Your task to perform on an android device: turn on bluetooth scan Image 0: 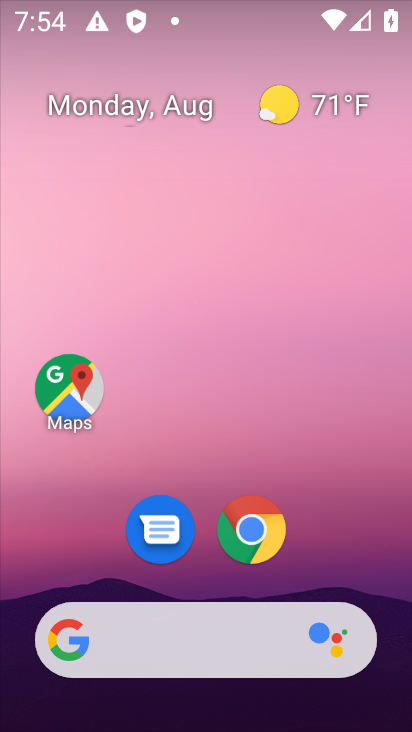
Step 0: drag from (280, 626) to (130, 69)
Your task to perform on an android device: turn on bluetooth scan Image 1: 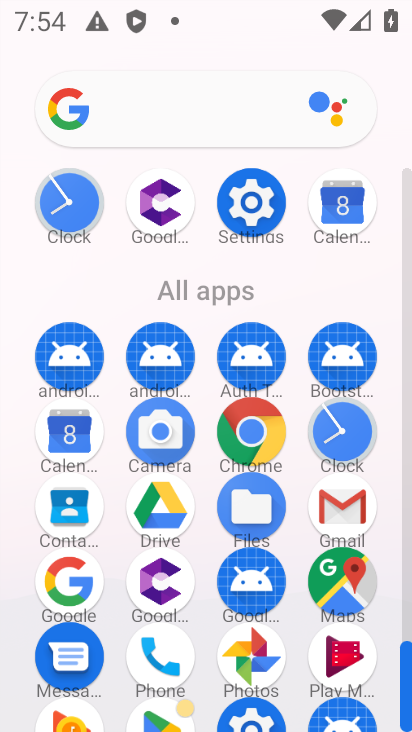
Step 1: click (242, 213)
Your task to perform on an android device: turn on bluetooth scan Image 2: 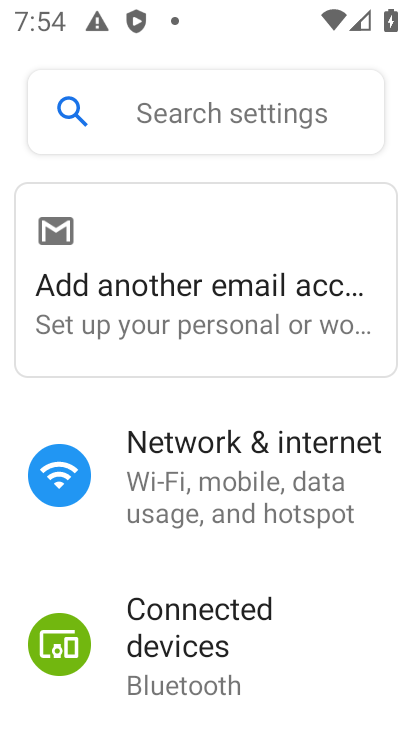
Step 2: click (295, 639)
Your task to perform on an android device: turn on bluetooth scan Image 3: 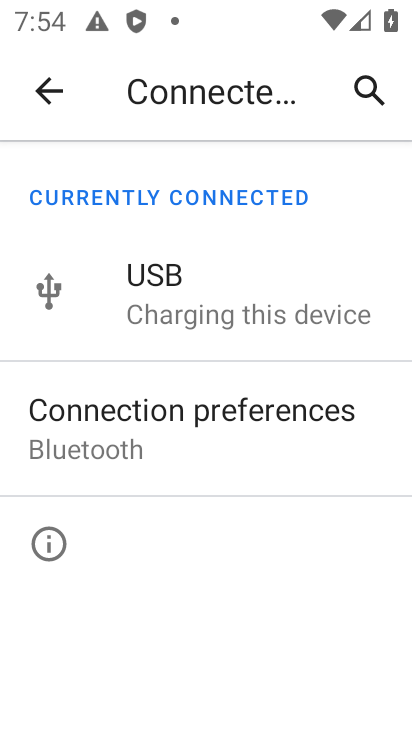
Step 3: click (233, 432)
Your task to perform on an android device: turn on bluetooth scan Image 4: 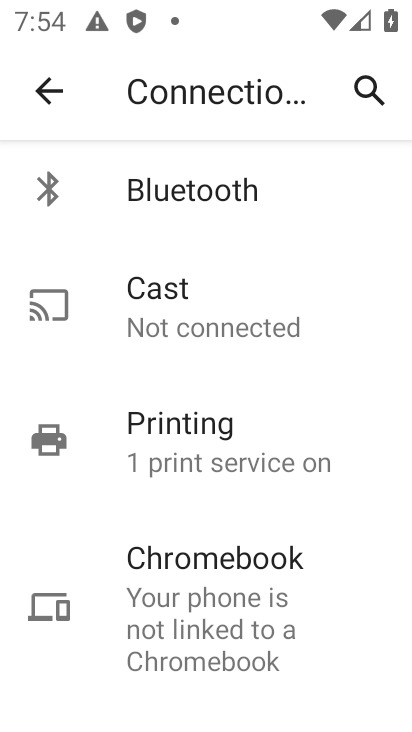
Step 4: click (174, 177)
Your task to perform on an android device: turn on bluetooth scan Image 5: 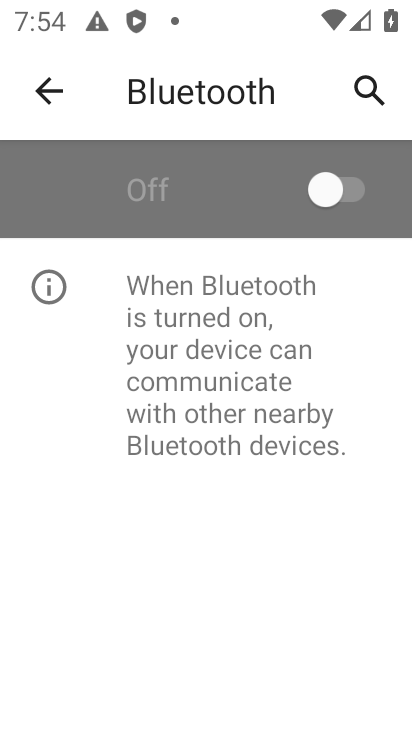
Step 5: click (327, 191)
Your task to perform on an android device: turn on bluetooth scan Image 6: 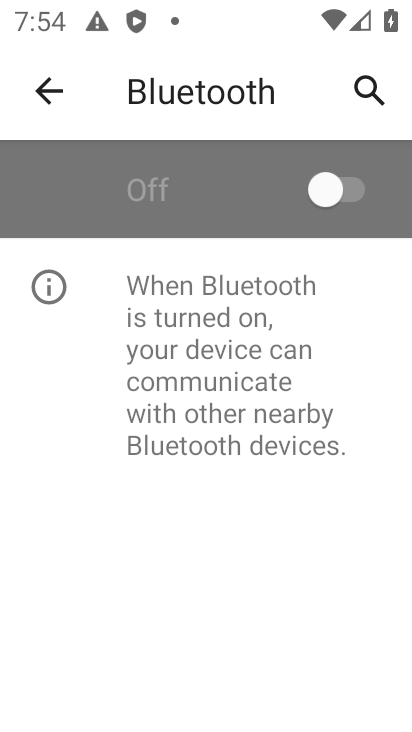
Step 6: click (306, 193)
Your task to perform on an android device: turn on bluetooth scan Image 7: 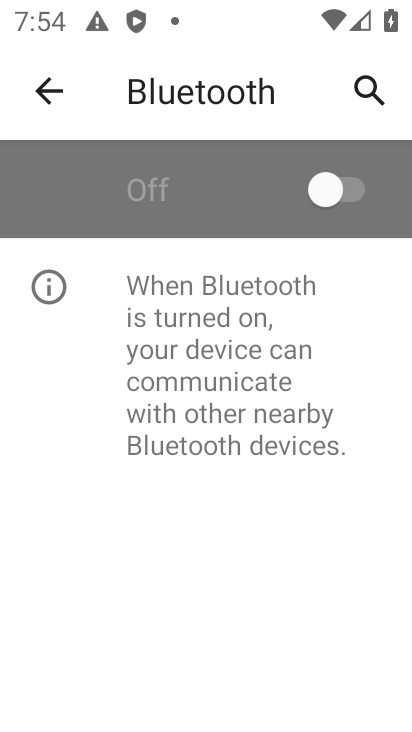
Step 7: task complete